Your task to perform on an android device: install app "Adobe Acrobat Reader: Edit PDF" Image 0: 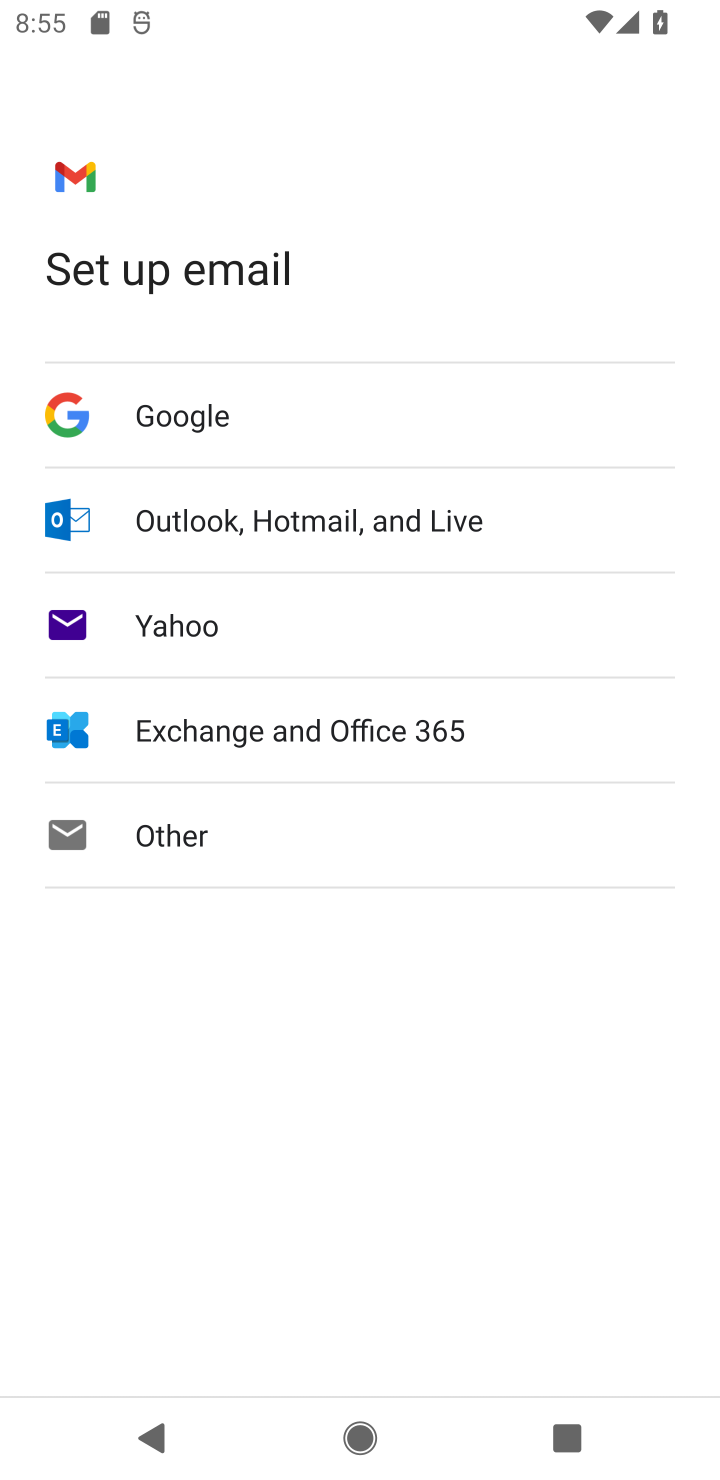
Step 0: press home button
Your task to perform on an android device: install app "Adobe Acrobat Reader: Edit PDF" Image 1: 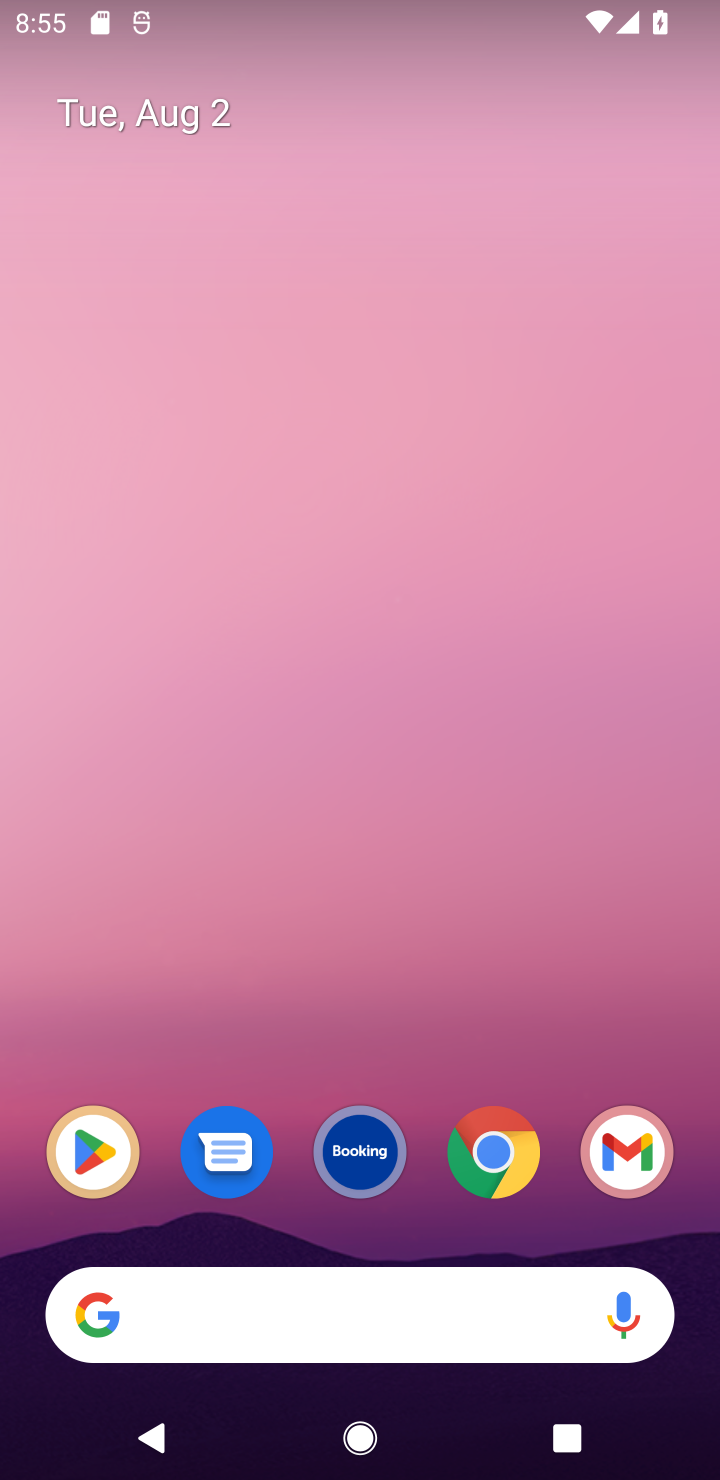
Step 1: click (85, 1163)
Your task to perform on an android device: install app "Adobe Acrobat Reader: Edit PDF" Image 2: 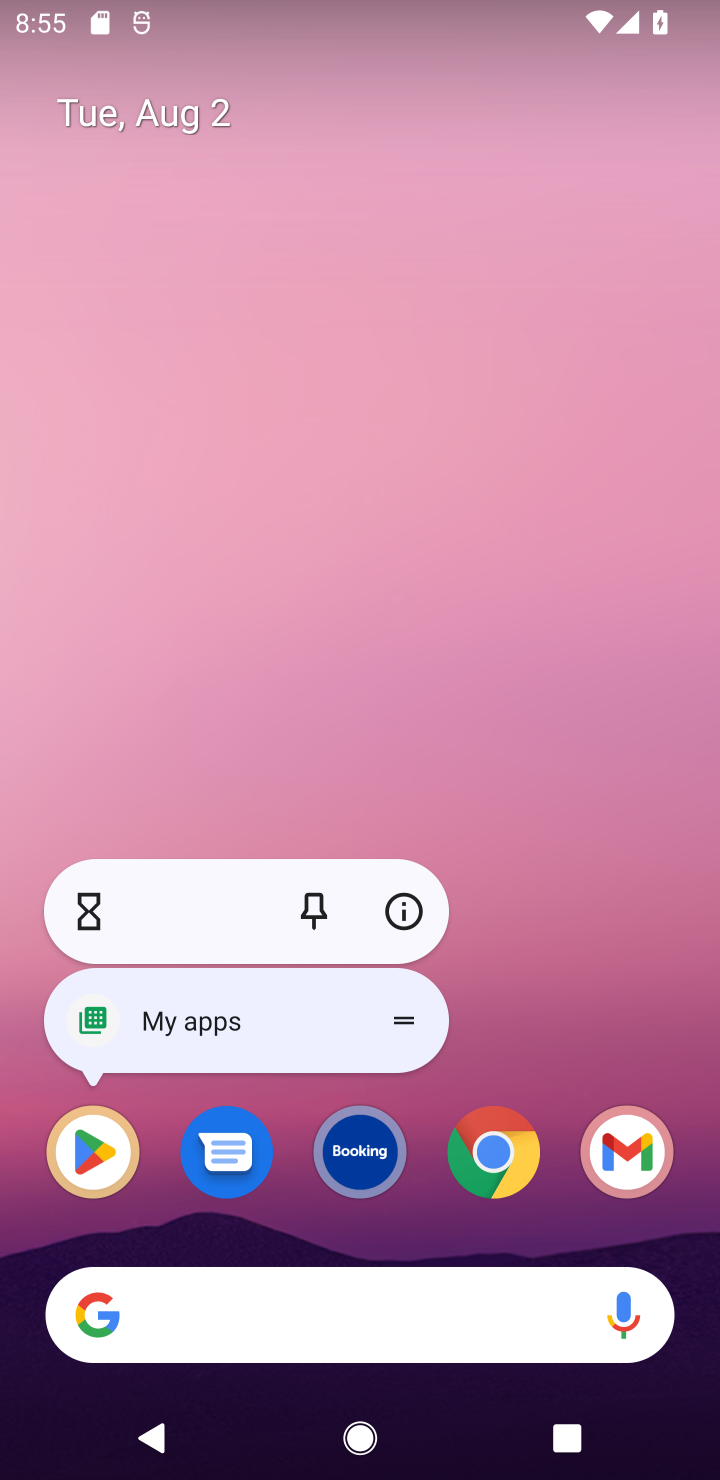
Step 2: click (86, 1176)
Your task to perform on an android device: install app "Adobe Acrobat Reader: Edit PDF" Image 3: 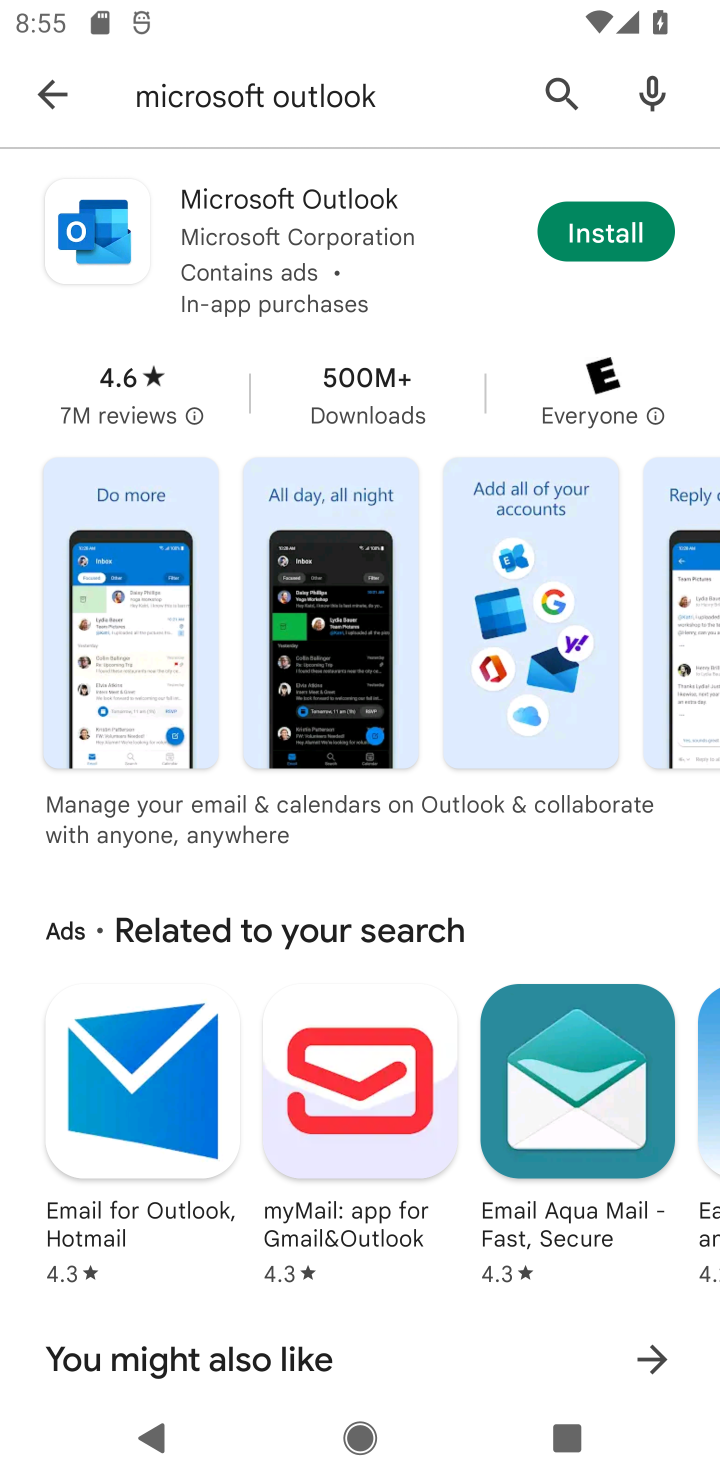
Step 3: click (58, 104)
Your task to perform on an android device: install app "Adobe Acrobat Reader: Edit PDF" Image 4: 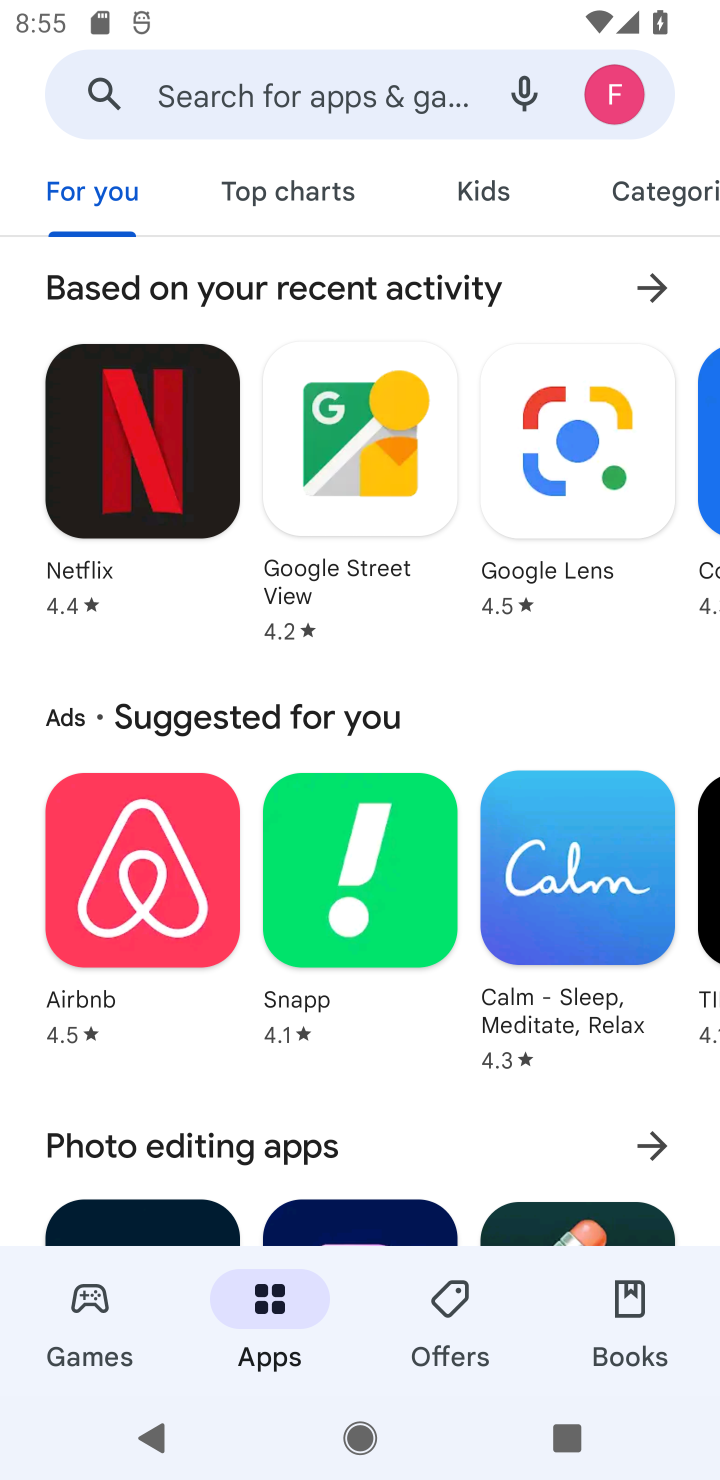
Step 4: click (239, 85)
Your task to perform on an android device: install app "Adobe Acrobat Reader: Edit PDF" Image 5: 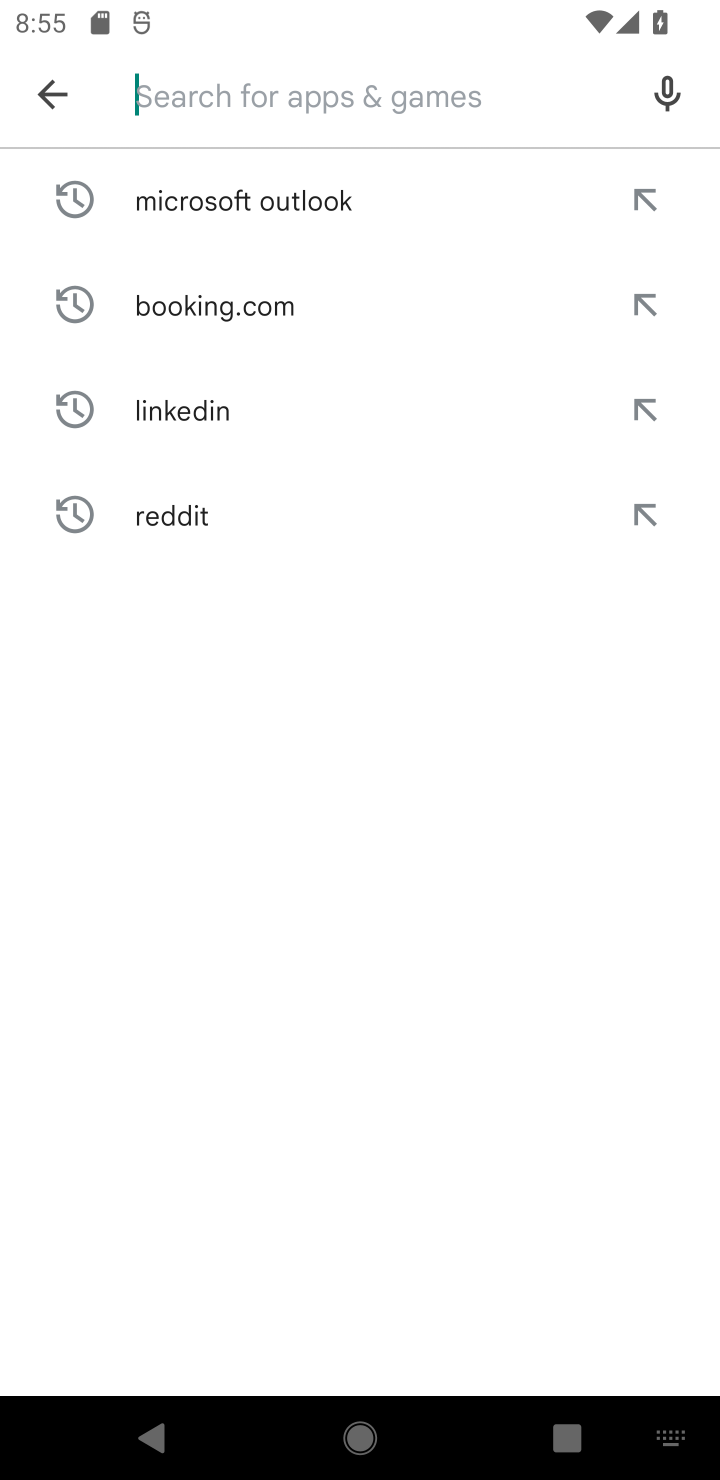
Step 5: type "Adobe Acrobat Reader: Edit PDF"
Your task to perform on an android device: install app "Adobe Acrobat Reader: Edit PDF" Image 6: 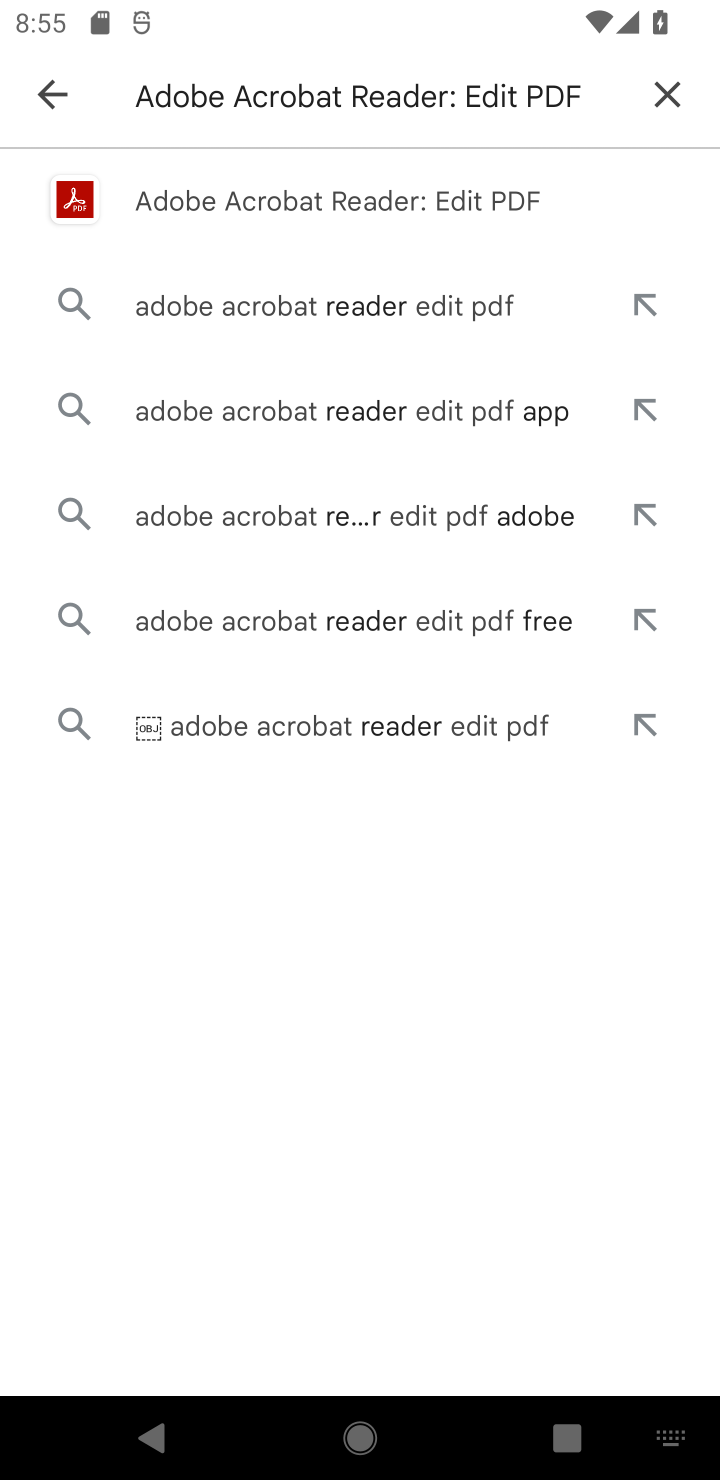
Step 6: click (240, 189)
Your task to perform on an android device: install app "Adobe Acrobat Reader: Edit PDF" Image 7: 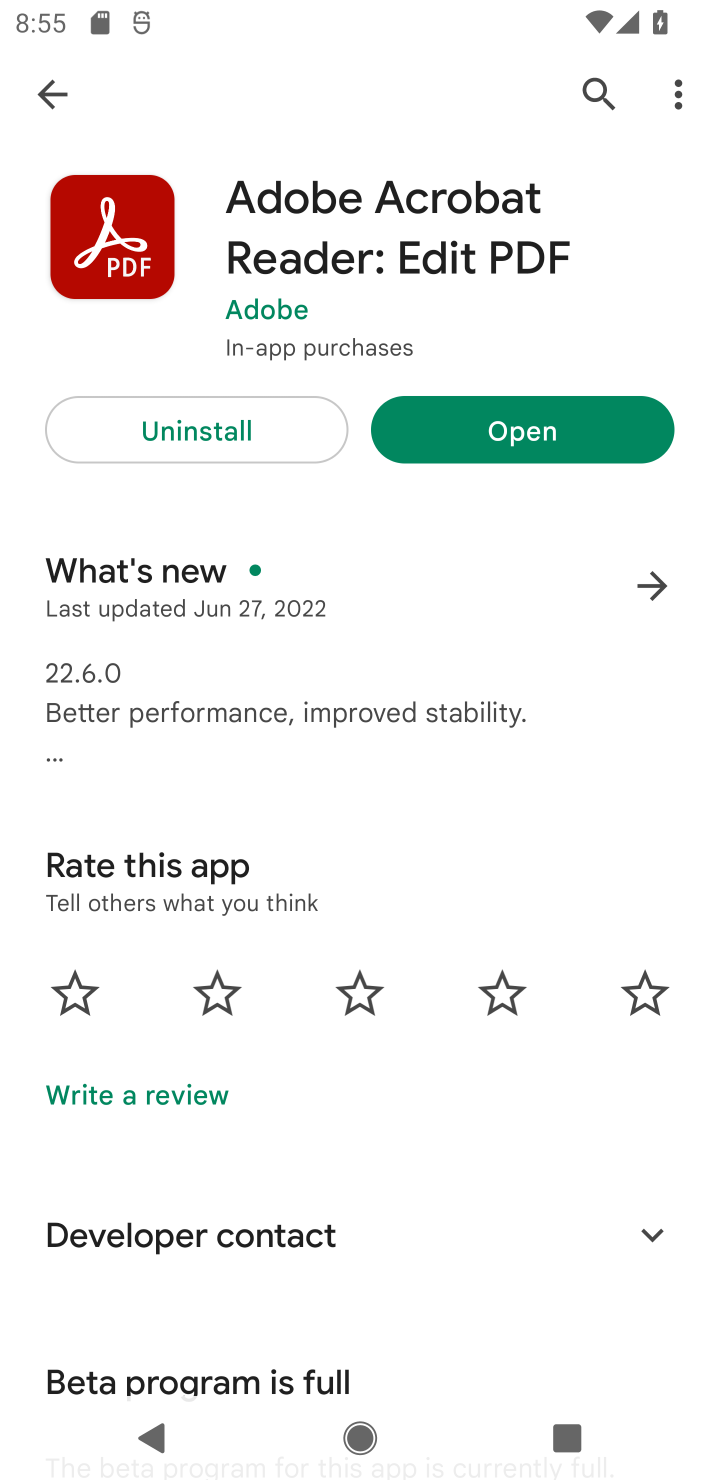
Step 7: click (500, 432)
Your task to perform on an android device: install app "Adobe Acrobat Reader: Edit PDF" Image 8: 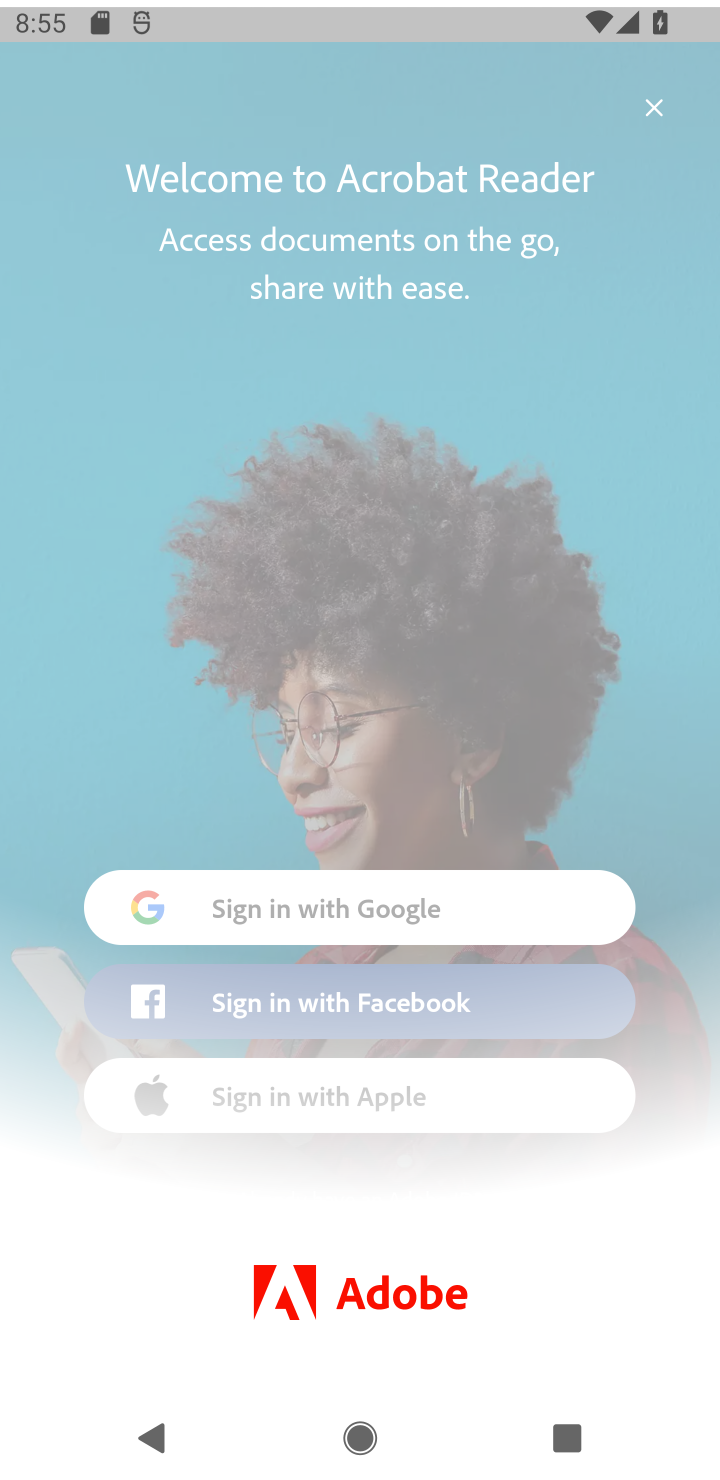
Step 8: task complete